Your task to perform on an android device: Open settings Image 0: 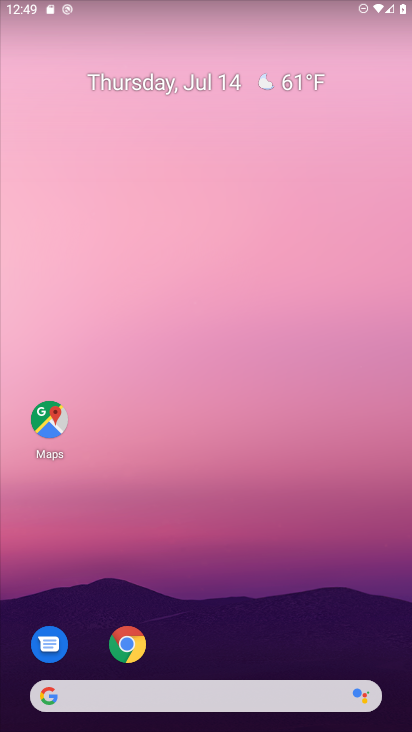
Step 0: drag from (237, 592) to (191, 122)
Your task to perform on an android device: Open settings Image 1: 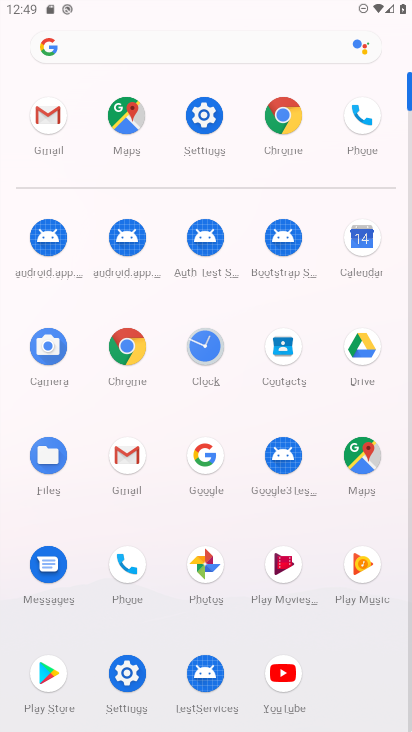
Step 1: click (211, 118)
Your task to perform on an android device: Open settings Image 2: 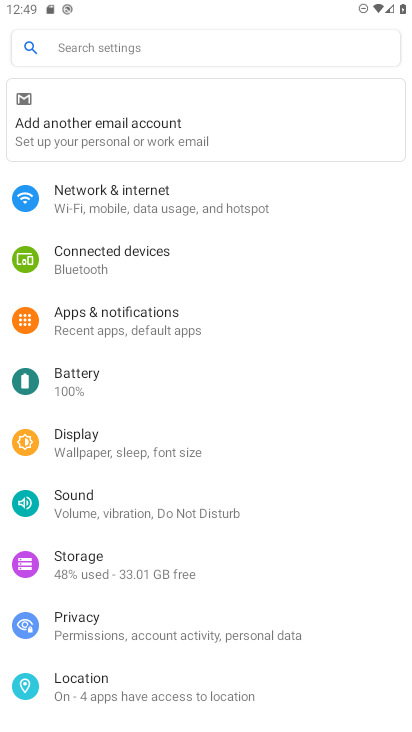
Step 2: task complete